Your task to perform on an android device: What's the weather today? Image 0: 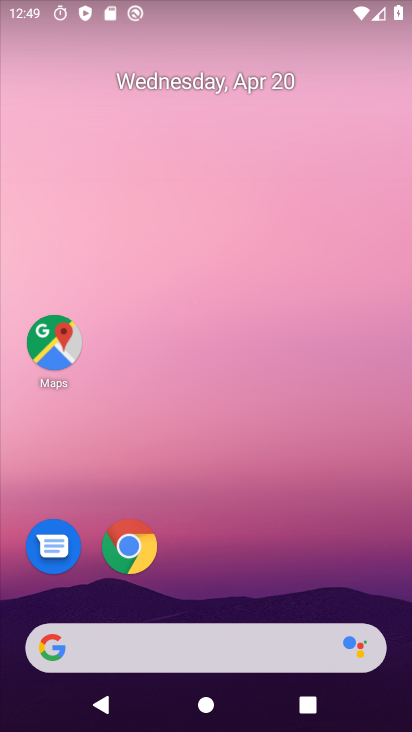
Step 0: drag from (209, 726) to (209, 96)
Your task to perform on an android device: What's the weather today? Image 1: 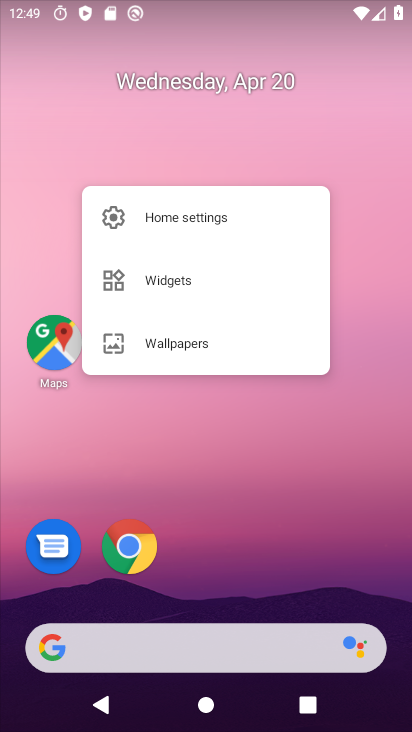
Step 1: click (240, 459)
Your task to perform on an android device: What's the weather today? Image 2: 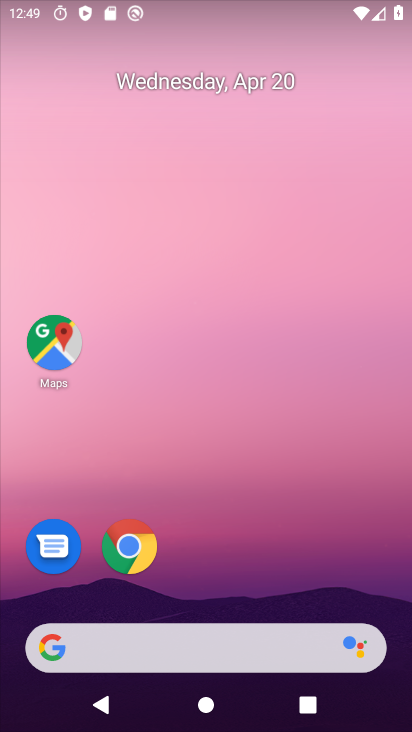
Step 2: drag from (207, 721) to (200, 200)
Your task to perform on an android device: What's the weather today? Image 3: 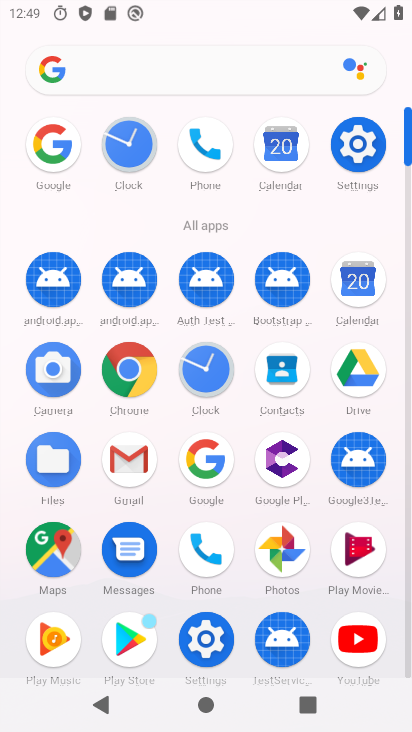
Step 3: click (209, 456)
Your task to perform on an android device: What's the weather today? Image 4: 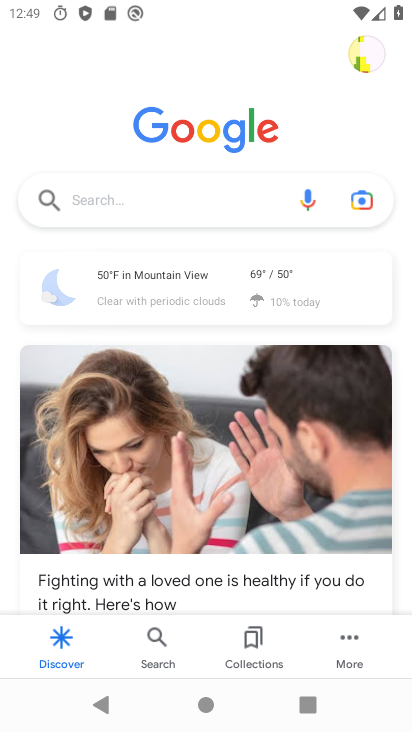
Step 4: click (182, 284)
Your task to perform on an android device: What's the weather today? Image 5: 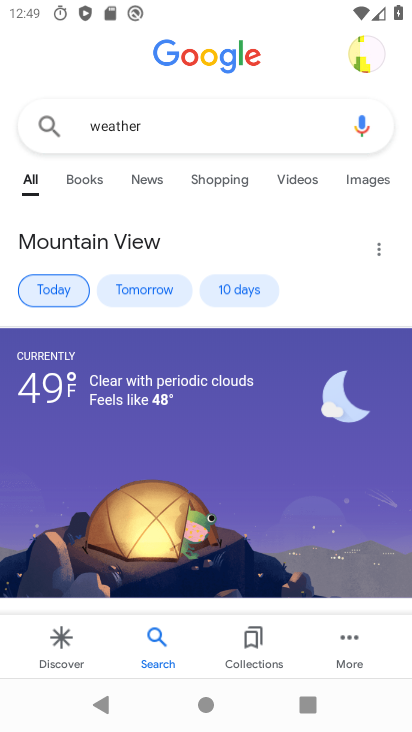
Step 5: task complete